Your task to perform on an android device: toggle notification dots Image 0: 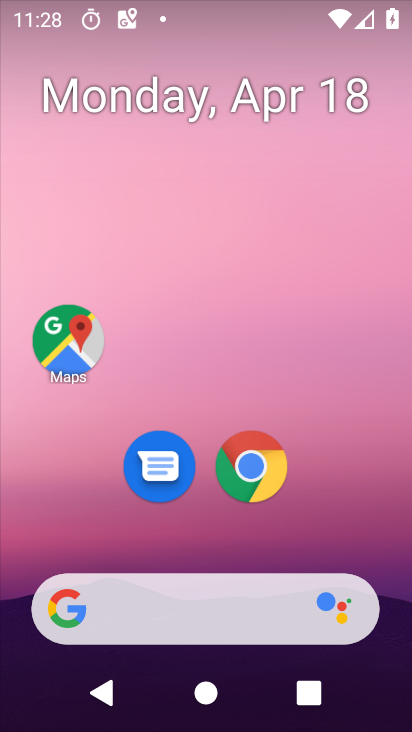
Step 0: click (359, 314)
Your task to perform on an android device: toggle notification dots Image 1: 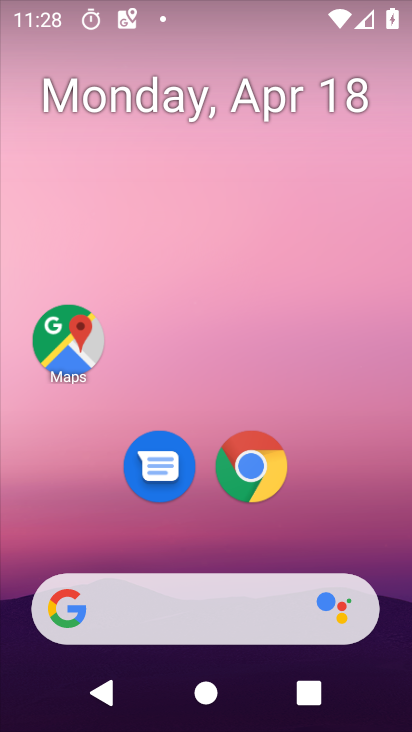
Step 1: drag from (249, 242) to (319, 15)
Your task to perform on an android device: toggle notification dots Image 2: 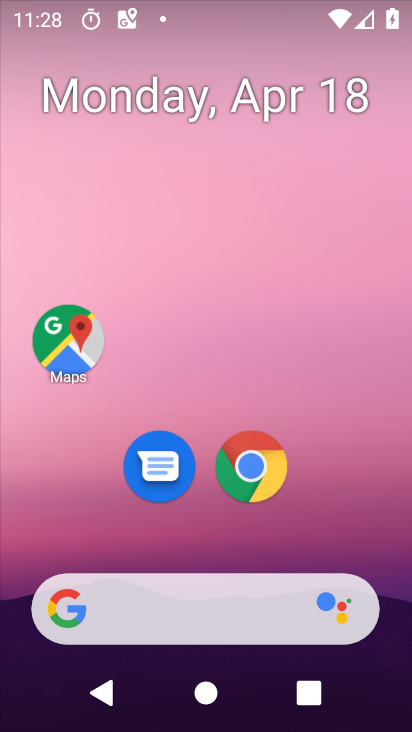
Step 2: drag from (251, 724) to (268, 10)
Your task to perform on an android device: toggle notification dots Image 3: 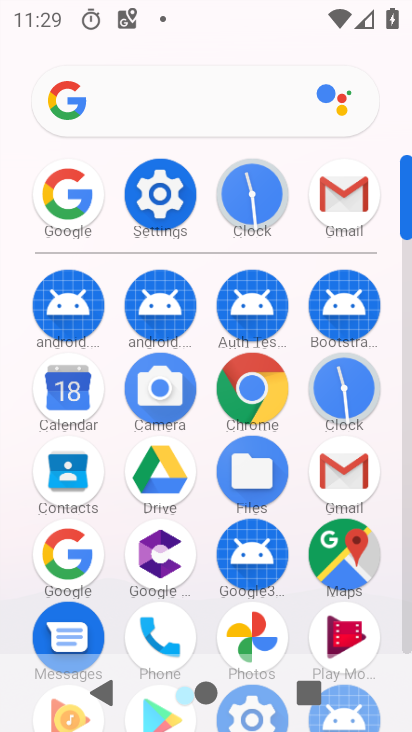
Step 3: drag from (236, 380) to (239, 278)
Your task to perform on an android device: toggle notification dots Image 4: 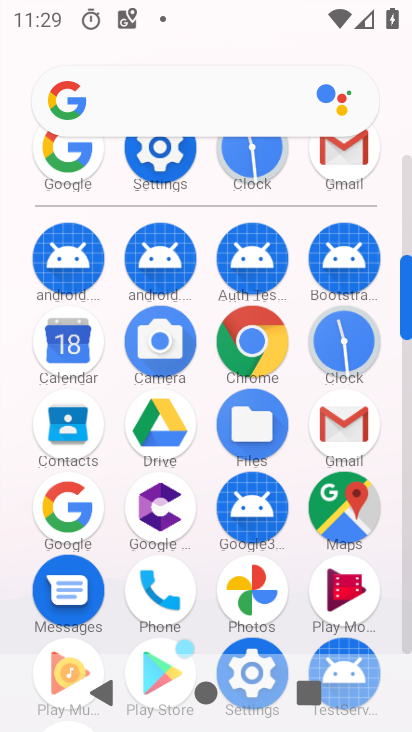
Step 4: click (176, 170)
Your task to perform on an android device: toggle notification dots Image 5: 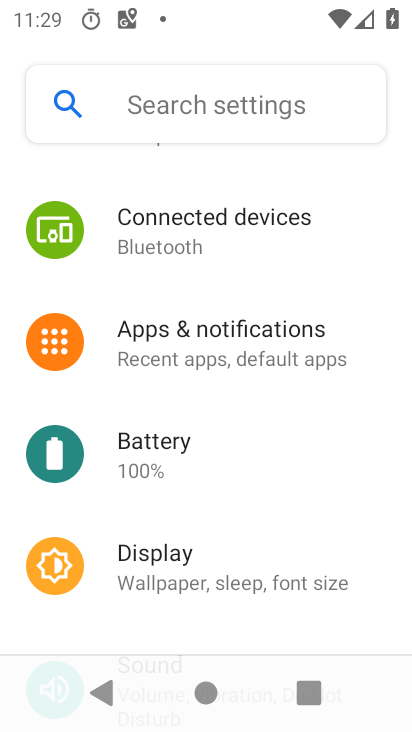
Step 5: click (232, 360)
Your task to perform on an android device: toggle notification dots Image 6: 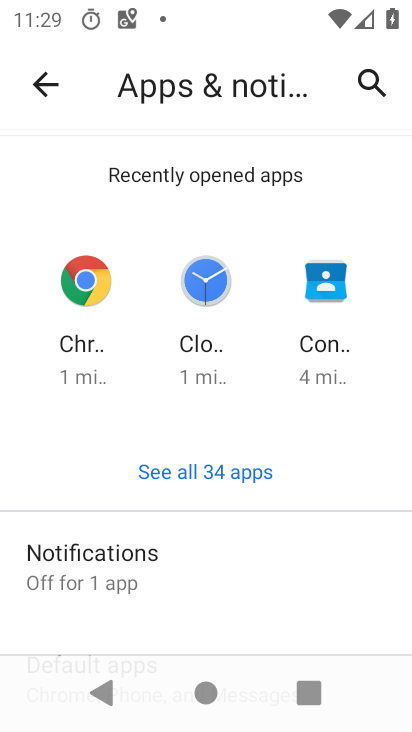
Step 6: click (193, 554)
Your task to perform on an android device: toggle notification dots Image 7: 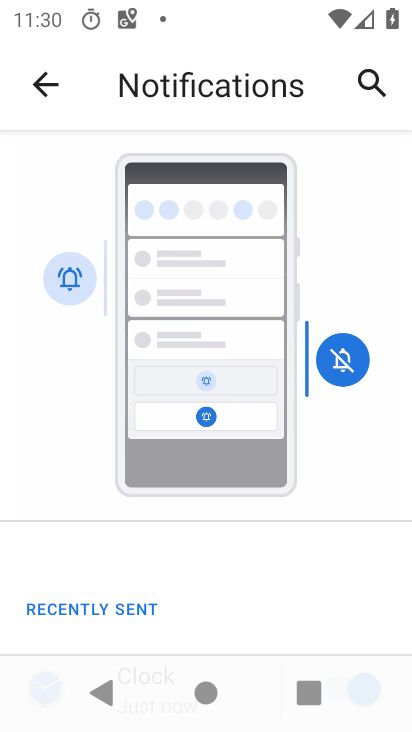
Step 7: drag from (193, 391) to (193, 99)
Your task to perform on an android device: toggle notification dots Image 8: 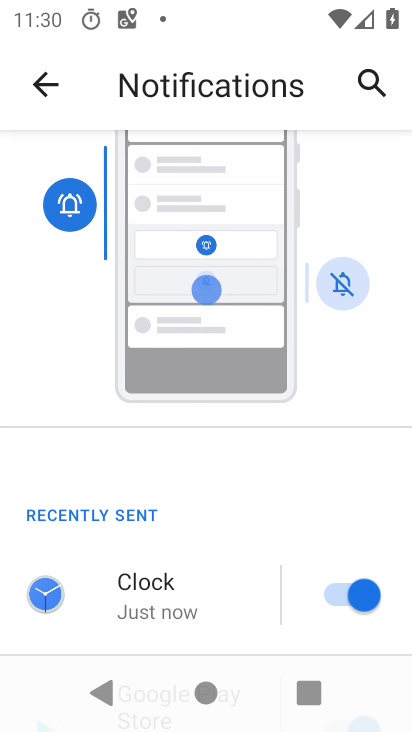
Step 8: drag from (270, 199) to (287, 86)
Your task to perform on an android device: toggle notification dots Image 9: 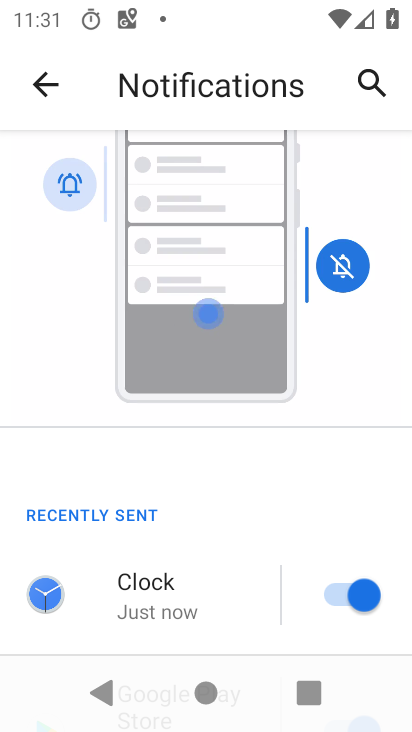
Step 9: drag from (298, 107) to (304, 68)
Your task to perform on an android device: toggle notification dots Image 10: 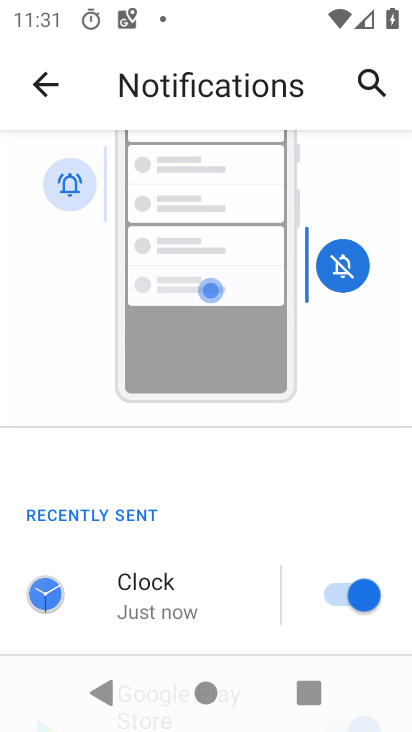
Step 10: drag from (220, 458) to (300, 27)
Your task to perform on an android device: toggle notification dots Image 11: 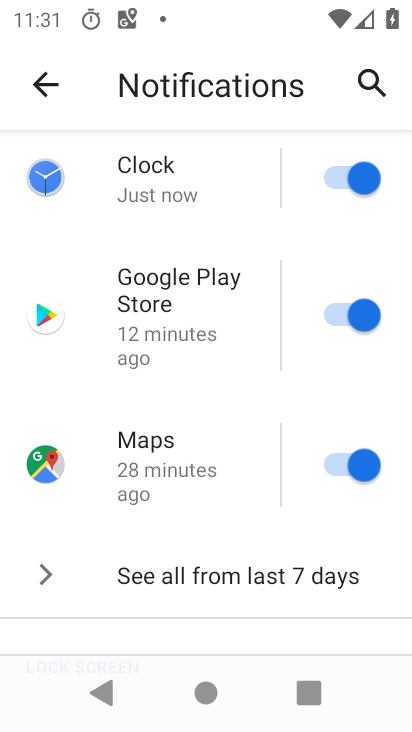
Step 11: drag from (159, 531) to (246, 91)
Your task to perform on an android device: toggle notification dots Image 12: 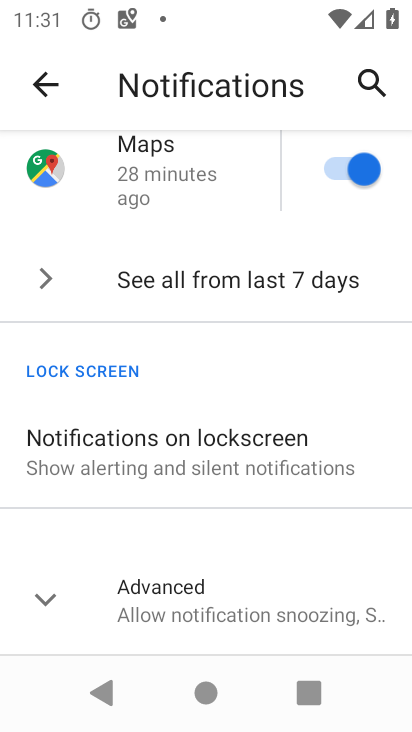
Step 12: click (225, 586)
Your task to perform on an android device: toggle notification dots Image 13: 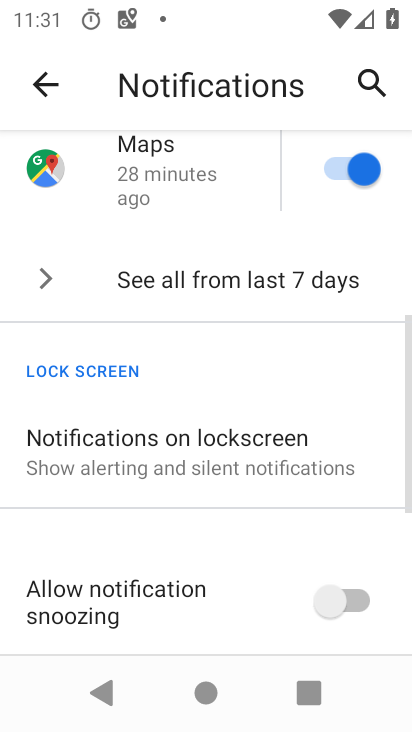
Step 13: drag from (239, 487) to (215, 18)
Your task to perform on an android device: toggle notification dots Image 14: 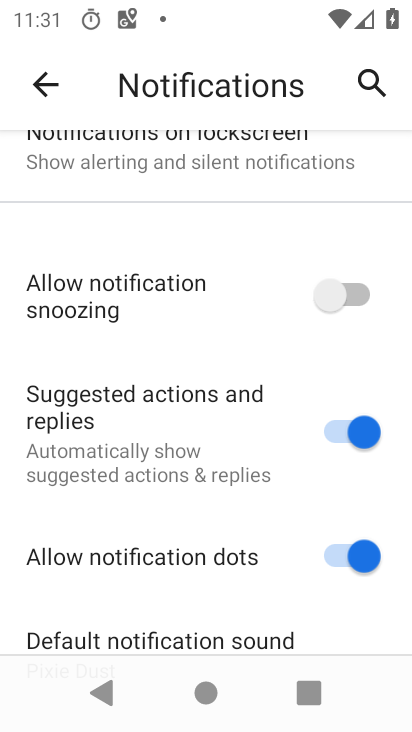
Step 14: click (325, 566)
Your task to perform on an android device: toggle notification dots Image 15: 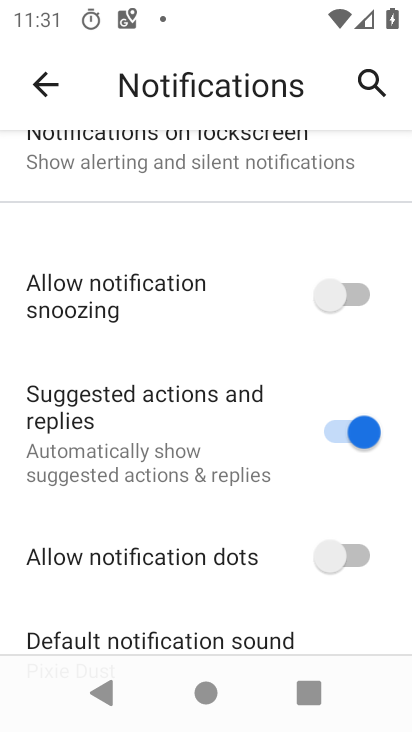
Step 15: task complete